Your task to perform on an android device: Go to Google maps Image 0: 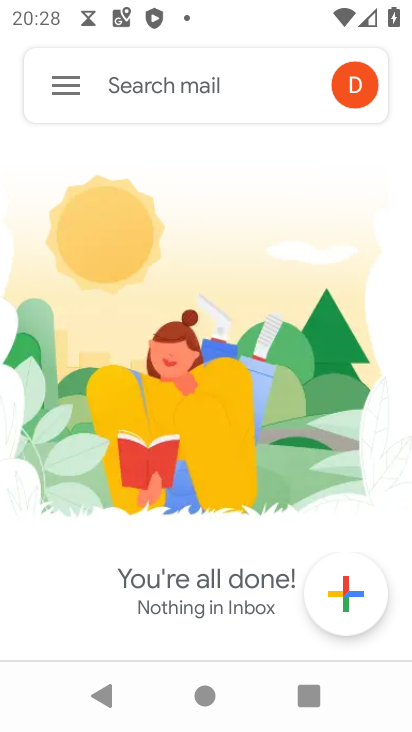
Step 0: press home button
Your task to perform on an android device: Go to Google maps Image 1: 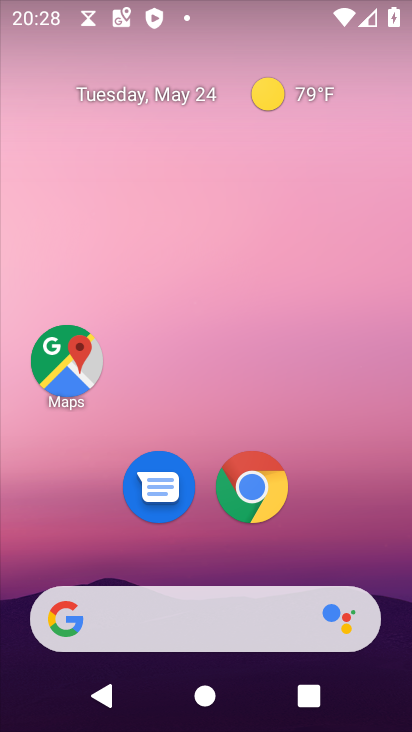
Step 1: click (59, 384)
Your task to perform on an android device: Go to Google maps Image 2: 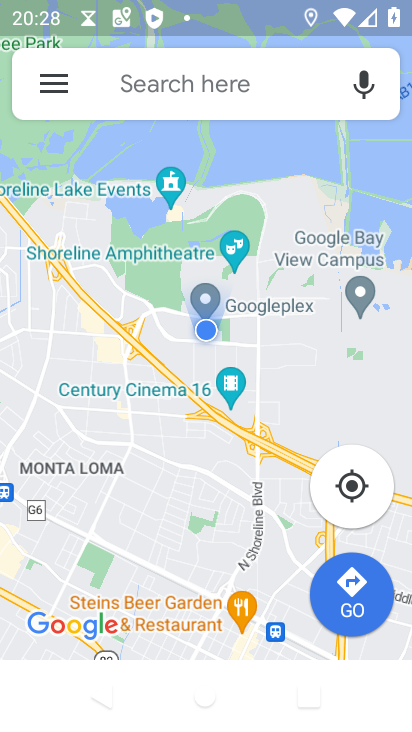
Step 2: task complete